Your task to perform on an android device: Open accessibility settings Image 0: 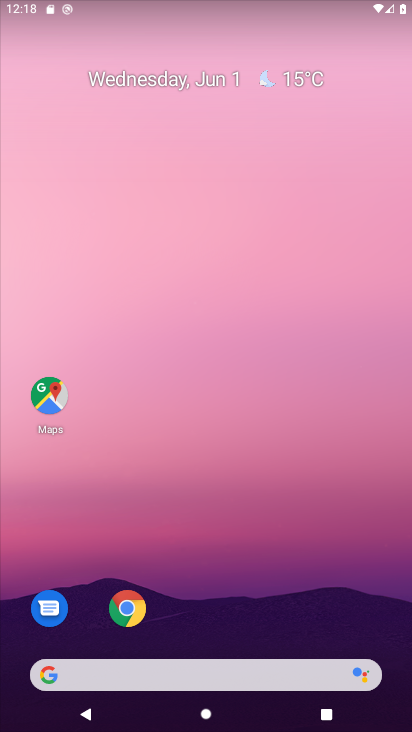
Step 0: drag from (222, 610) to (330, 165)
Your task to perform on an android device: Open accessibility settings Image 1: 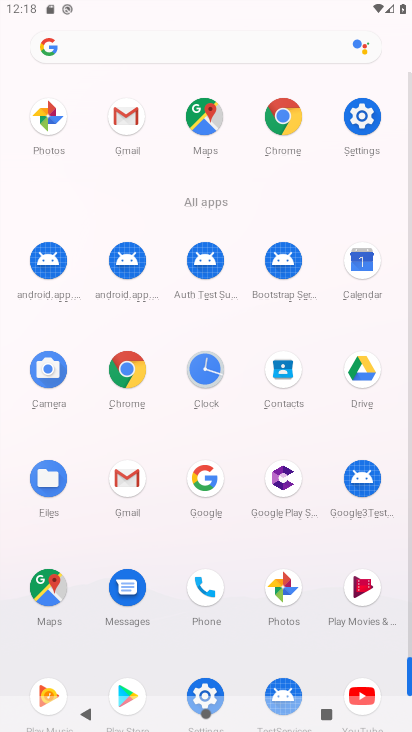
Step 1: click (361, 137)
Your task to perform on an android device: Open accessibility settings Image 2: 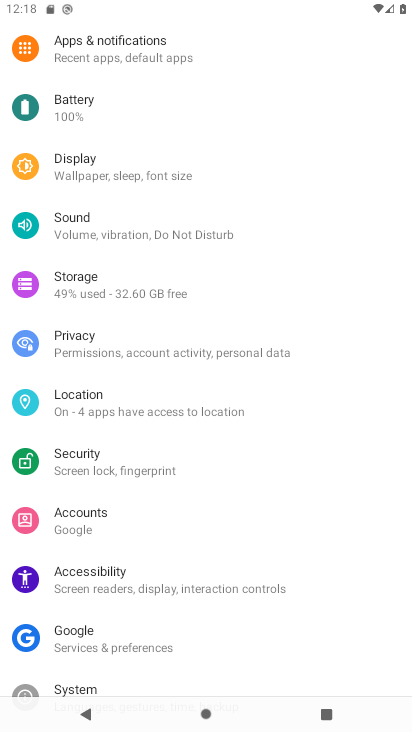
Step 2: click (110, 590)
Your task to perform on an android device: Open accessibility settings Image 3: 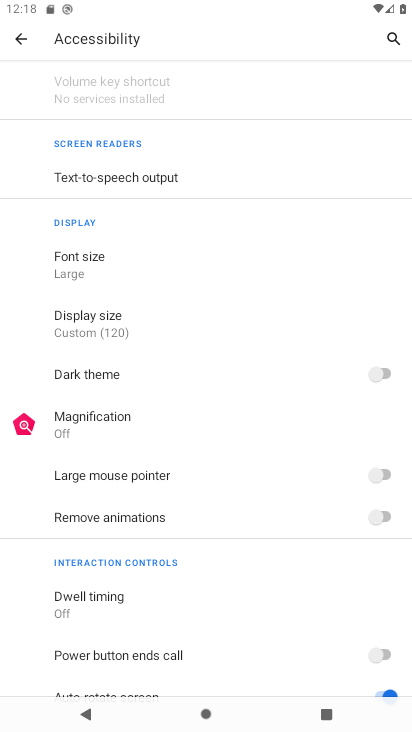
Step 3: task complete